Your task to perform on an android device: toggle javascript in the chrome app Image 0: 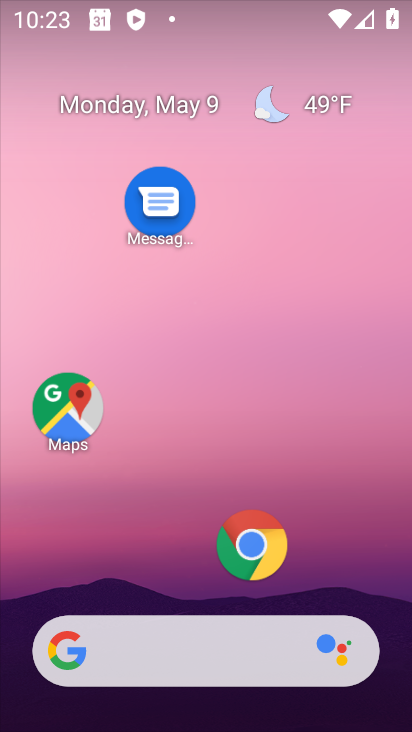
Step 0: click (260, 542)
Your task to perform on an android device: toggle javascript in the chrome app Image 1: 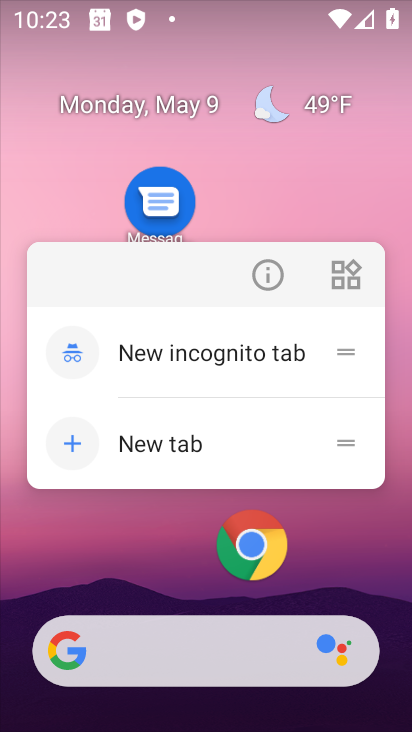
Step 1: click (260, 542)
Your task to perform on an android device: toggle javascript in the chrome app Image 2: 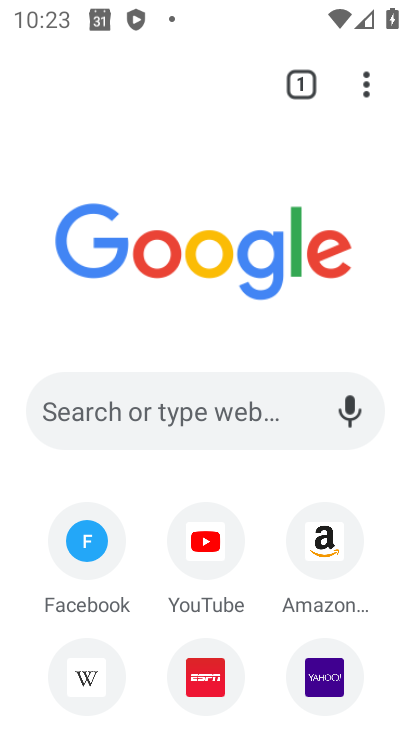
Step 2: click (362, 91)
Your task to perform on an android device: toggle javascript in the chrome app Image 3: 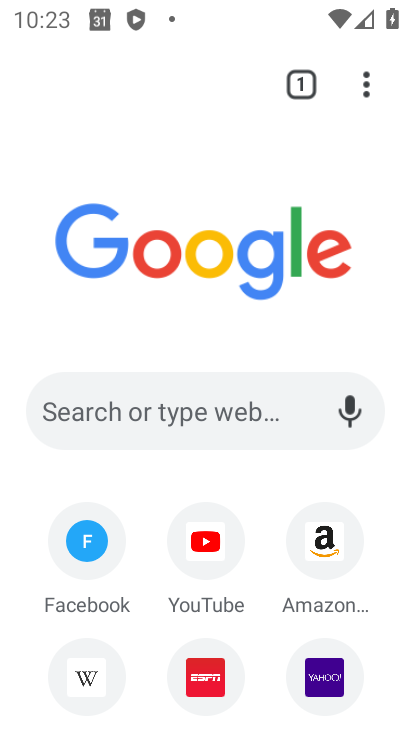
Step 3: click (362, 91)
Your task to perform on an android device: toggle javascript in the chrome app Image 4: 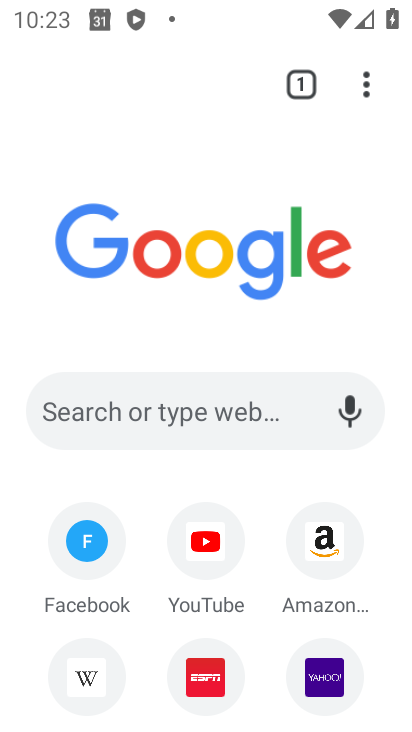
Step 4: click (362, 92)
Your task to perform on an android device: toggle javascript in the chrome app Image 5: 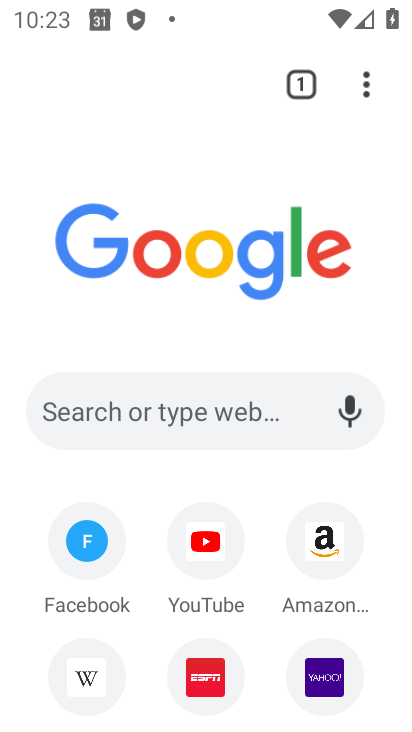
Step 5: click (364, 85)
Your task to perform on an android device: toggle javascript in the chrome app Image 6: 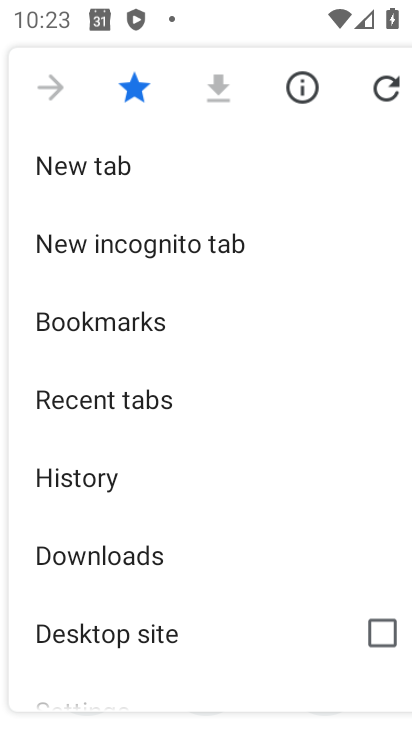
Step 6: drag from (175, 640) to (210, 257)
Your task to perform on an android device: toggle javascript in the chrome app Image 7: 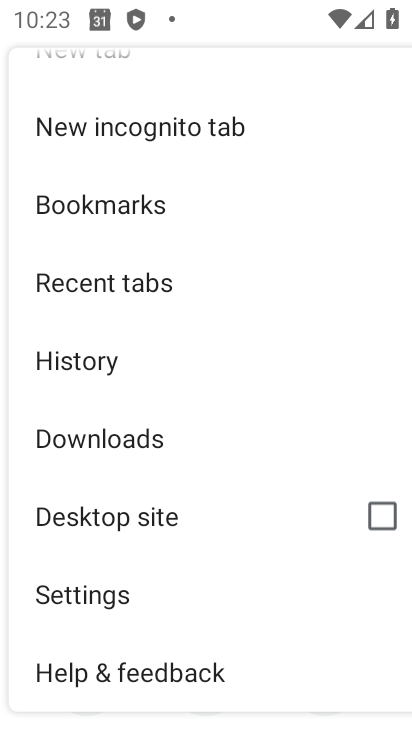
Step 7: click (185, 587)
Your task to perform on an android device: toggle javascript in the chrome app Image 8: 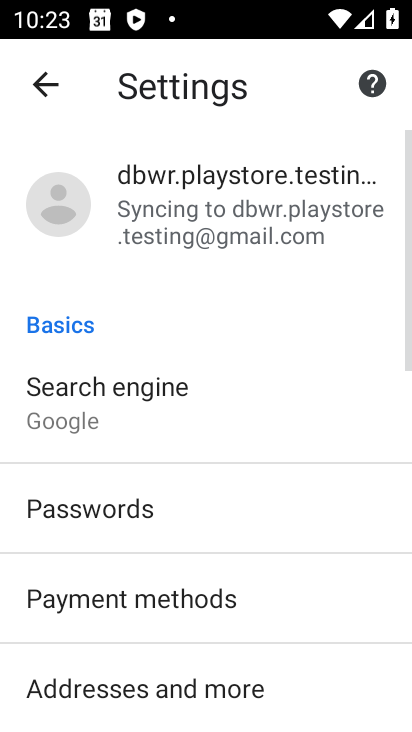
Step 8: drag from (191, 632) to (242, 321)
Your task to perform on an android device: toggle javascript in the chrome app Image 9: 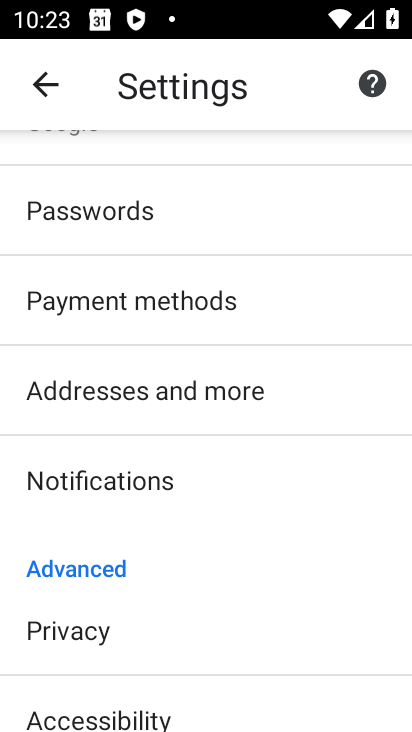
Step 9: drag from (208, 650) to (215, 419)
Your task to perform on an android device: toggle javascript in the chrome app Image 10: 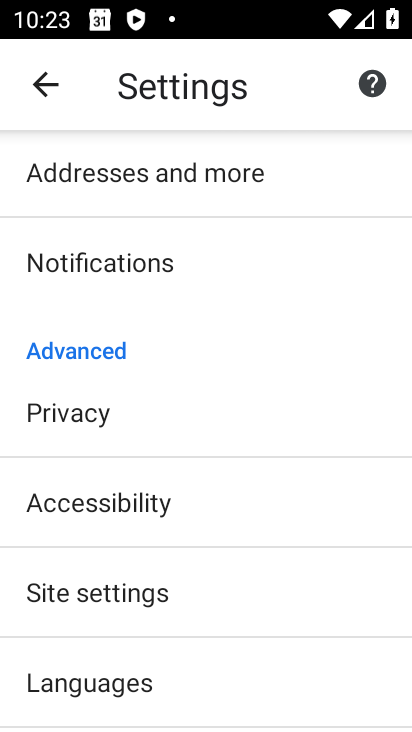
Step 10: click (223, 601)
Your task to perform on an android device: toggle javascript in the chrome app Image 11: 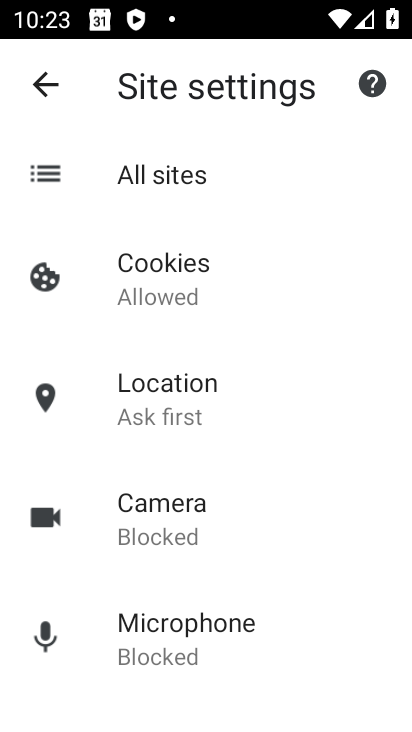
Step 11: drag from (207, 630) to (215, 507)
Your task to perform on an android device: toggle javascript in the chrome app Image 12: 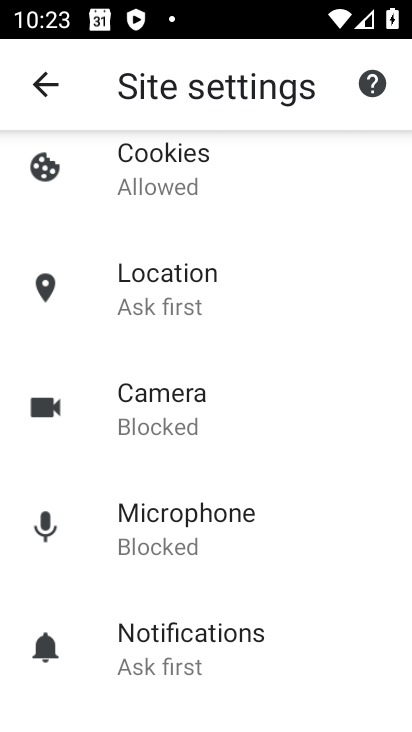
Step 12: drag from (191, 648) to (208, 555)
Your task to perform on an android device: toggle javascript in the chrome app Image 13: 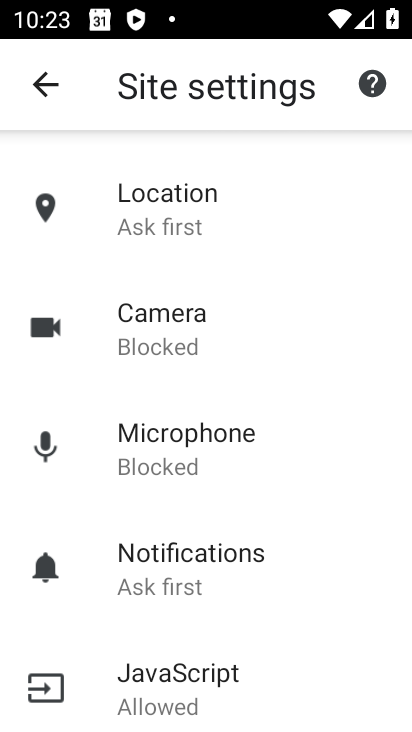
Step 13: click (245, 684)
Your task to perform on an android device: toggle javascript in the chrome app Image 14: 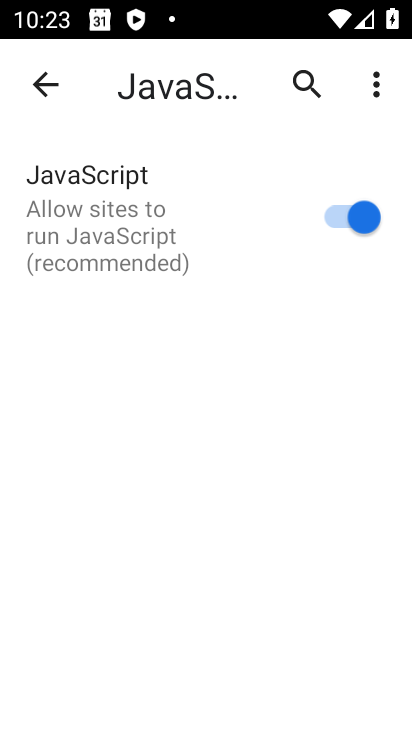
Step 14: click (328, 227)
Your task to perform on an android device: toggle javascript in the chrome app Image 15: 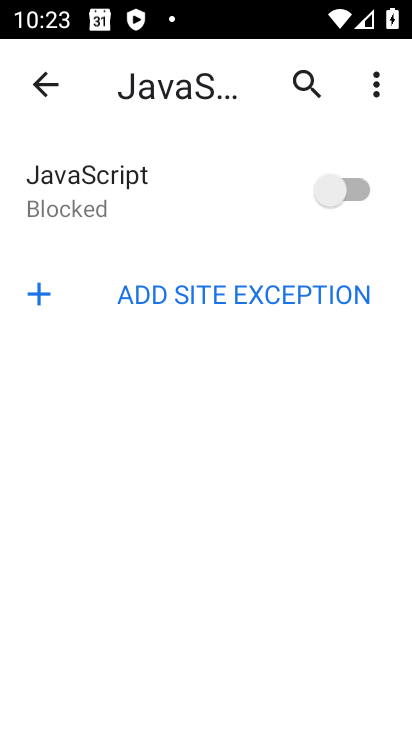
Step 15: task complete